Your task to perform on an android device: refresh tabs in the chrome app Image 0: 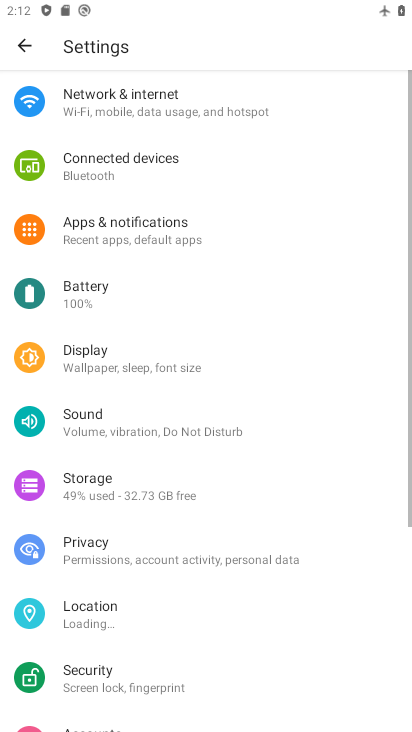
Step 0: press home button
Your task to perform on an android device: refresh tabs in the chrome app Image 1: 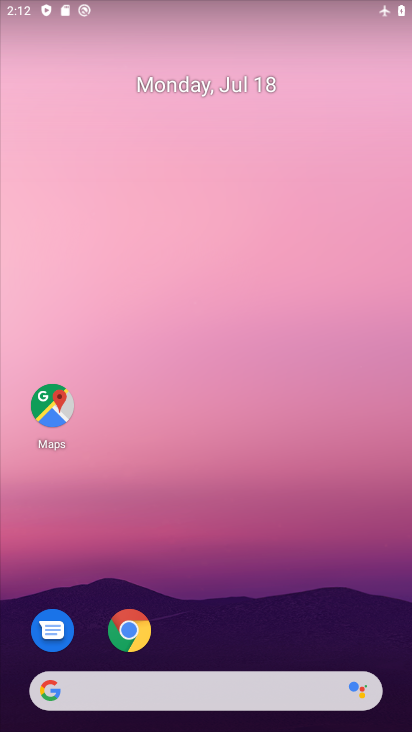
Step 1: drag from (264, 645) to (294, 8)
Your task to perform on an android device: refresh tabs in the chrome app Image 2: 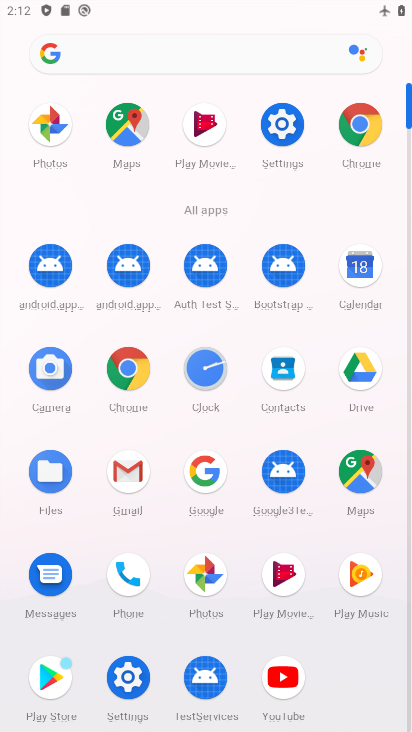
Step 2: click (350, 130)
Your task to perform on an android device: refresh tabs in the chrome app Image 3: 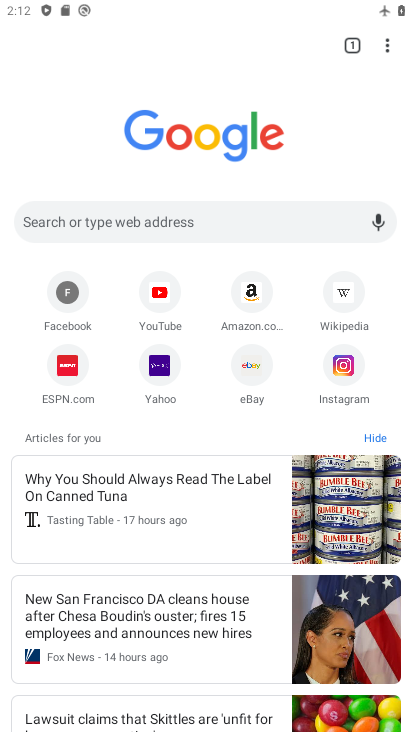
Step 3: click (382, 47)
Your task to perform on an android device: refresh tabs in the chrome app Image 4: 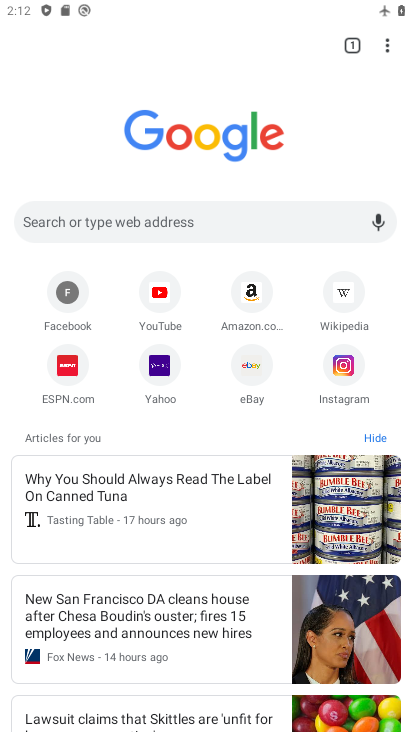
Step 4: task complete